Your task to perform on an android device: toggle show notifications on the lock screen Image 0: 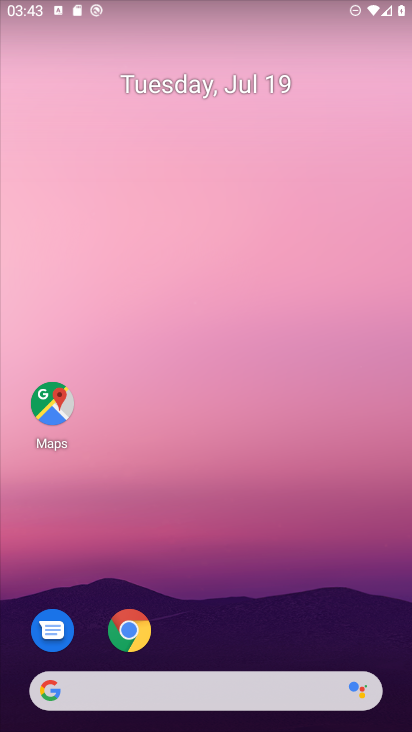
Step 0: drag from (369, 636) to (344, 156)
Your task to perform on an android device: toggle show notifications on the lock screen Image 1: 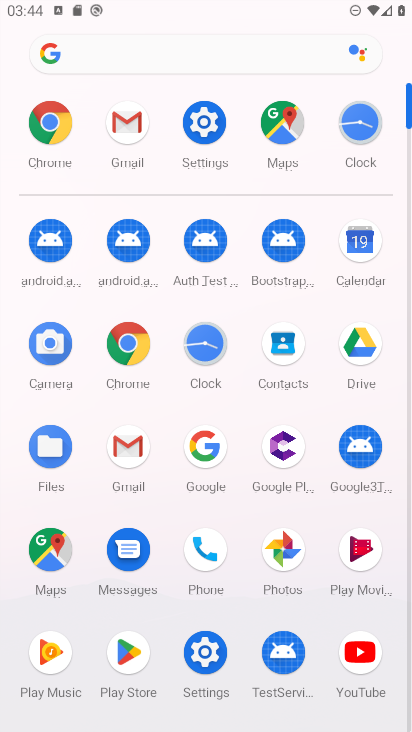
Step 1: click (206, 652)
Your task to perform on an android device: toggle show notifications on the lock screen Image 2: 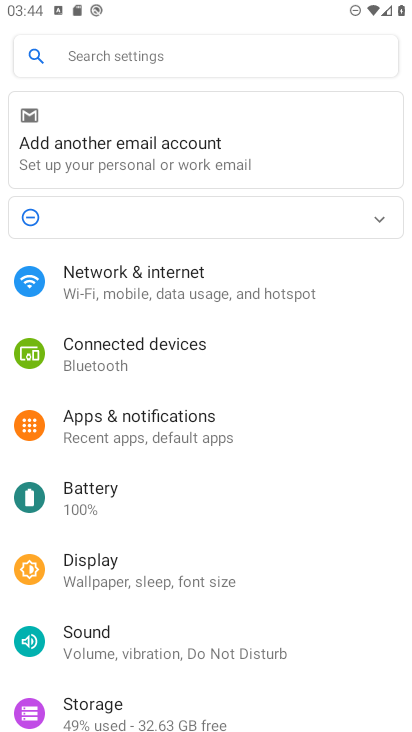
Step 2: click (111, 431)
Your task to perform on an android device: toggle show notifications on the lock screen Image 3: 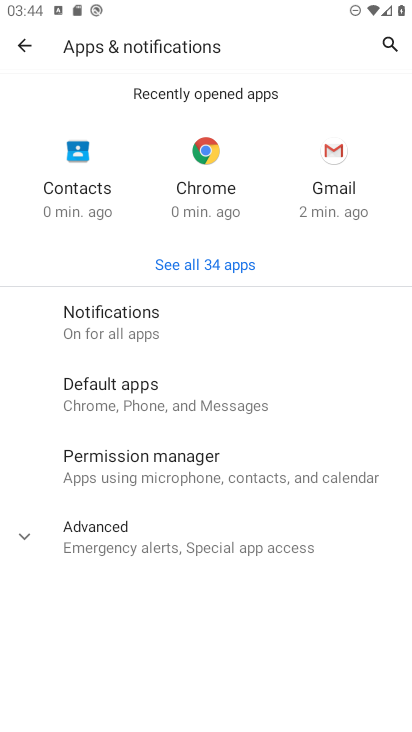
Step 3: click (99, 304)
Your task to perform on an android device: toggle show notifications on the lock screen Image 4: 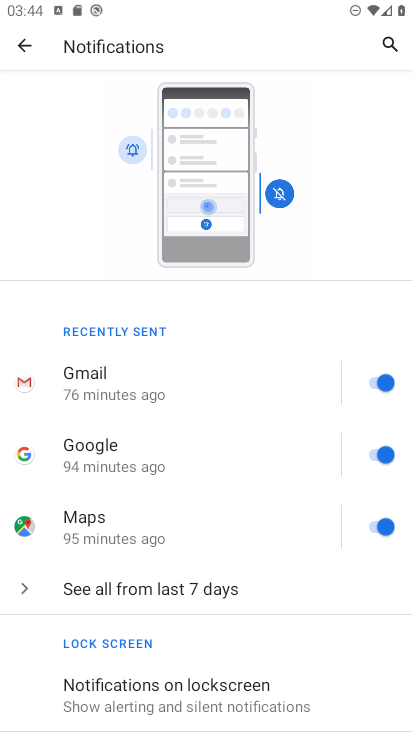
Step 4: drag from (304, 658) to (284, 193)
Your task to perform on an android device: toggle show notifications on the lock screen Image 5: 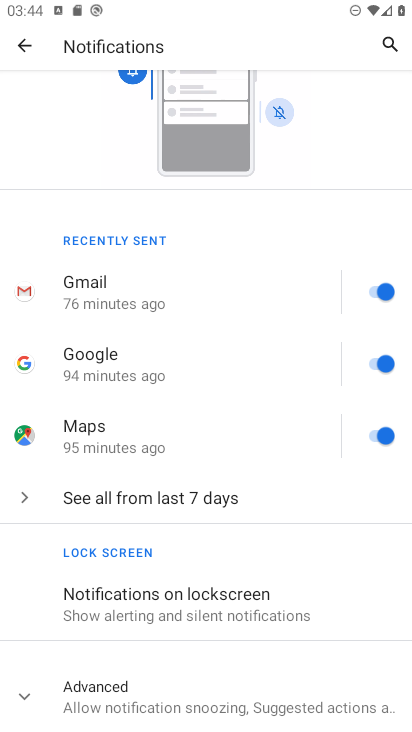
Step 5: click (125, 606)
Your task to perform on an android device: toggle show notifications on the lock screen Image 6: 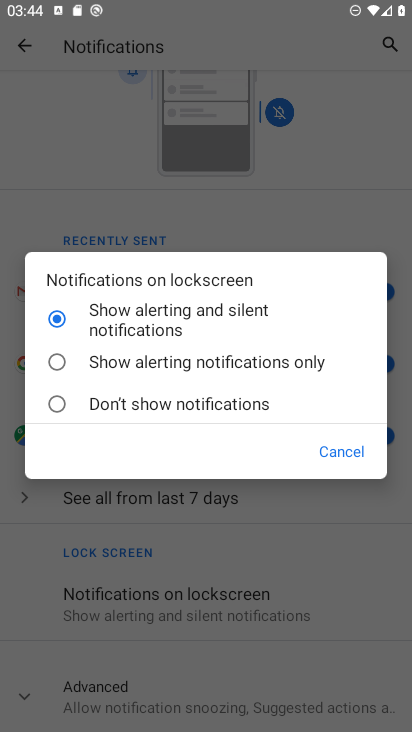
Step 6: click (58, 360)
Your task to perform on an android device: toggle show notifications on the lock screen Image 7: 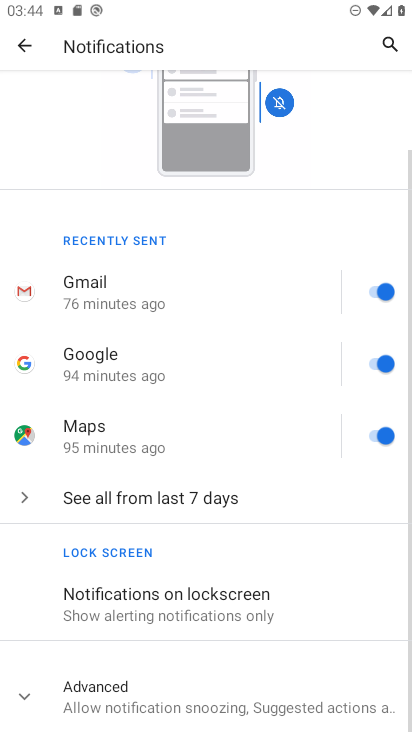
Step 7: task complete